Your task to perform on an android device: install app "Adobe Acrobat Reader: Edit PDF" Image 0: 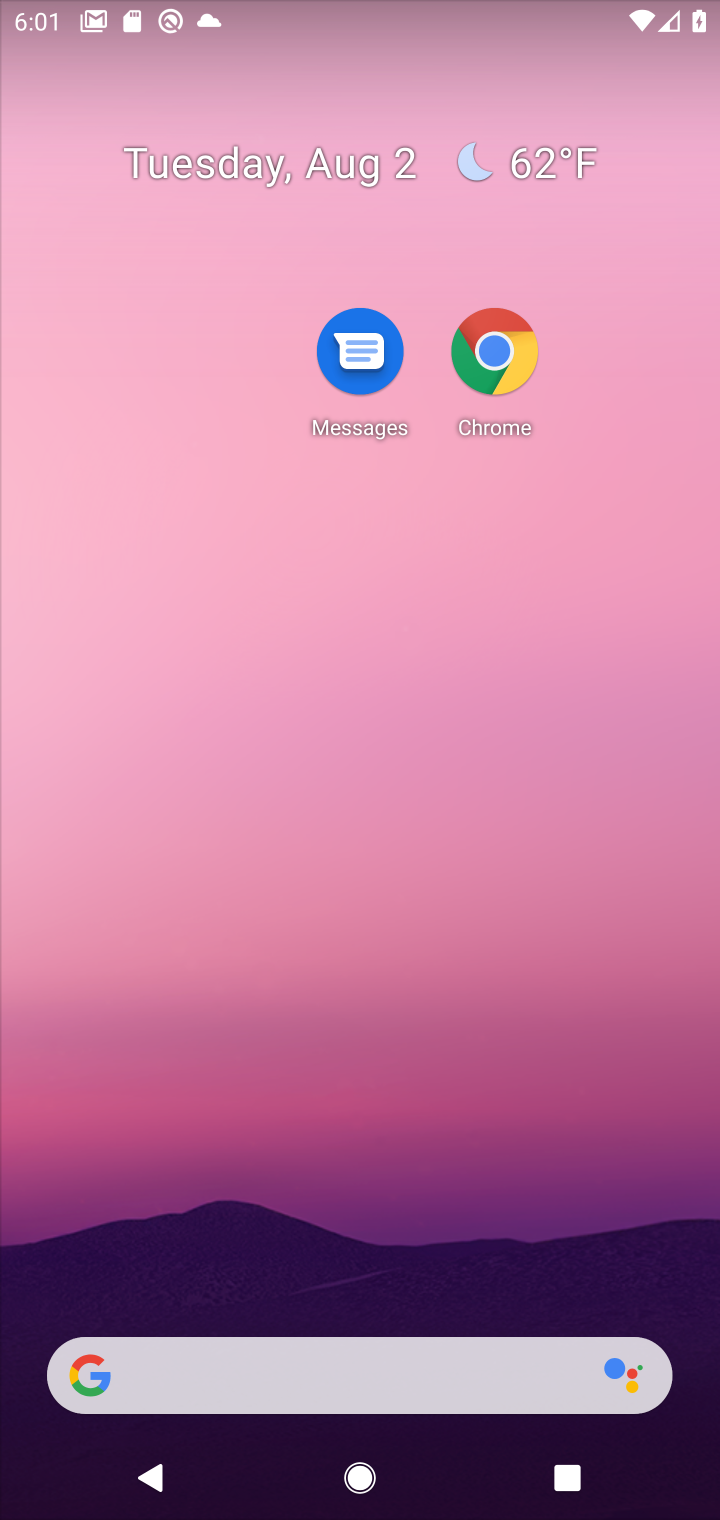
Step 0: click (427, 296)
Your task to perform on an android device: install app "Adobe Acrobat Reader: Edit PDF" Image 1: 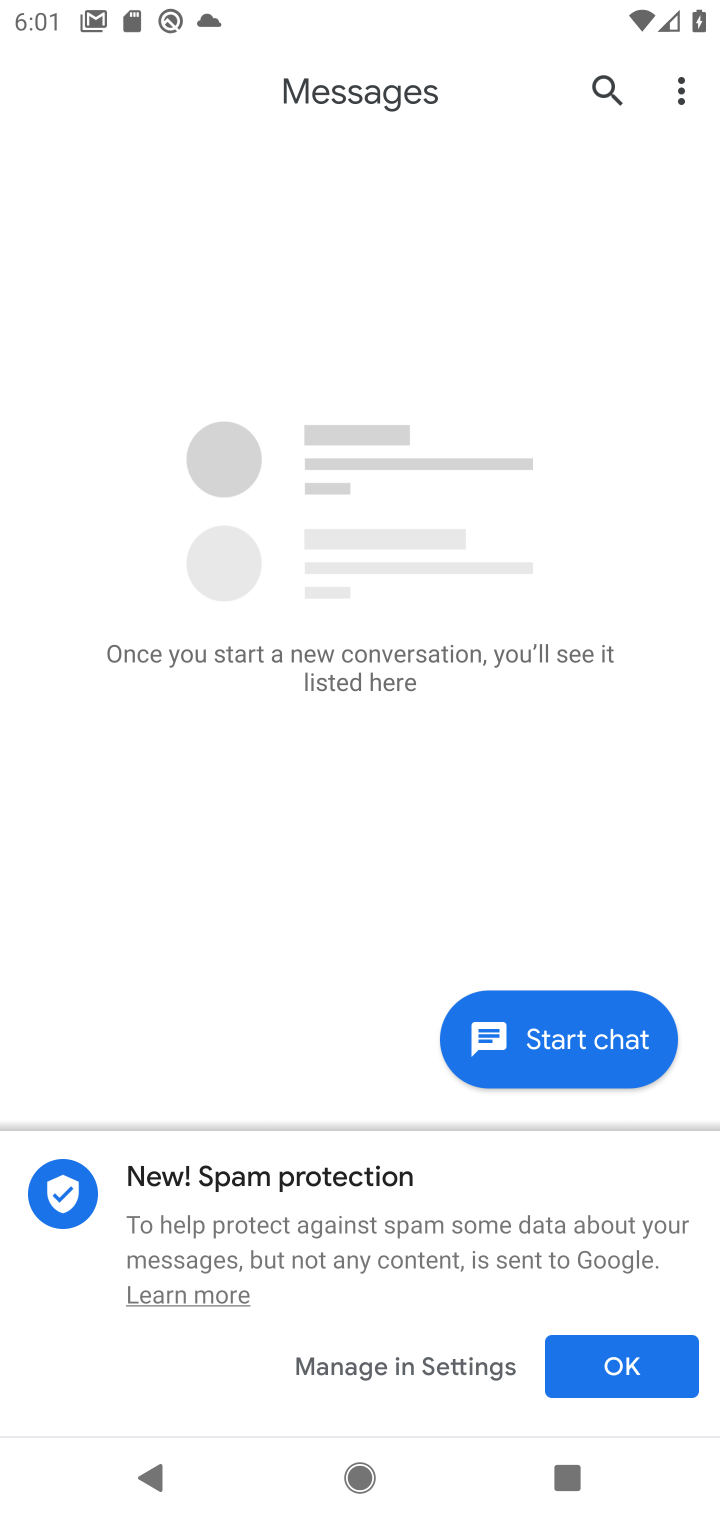
Step 1: drag from (340, 1239) to (488, 119)
Your task to perform on an android device: install app "Adobe Acrobat Reader: Edit PDF" Image 2: 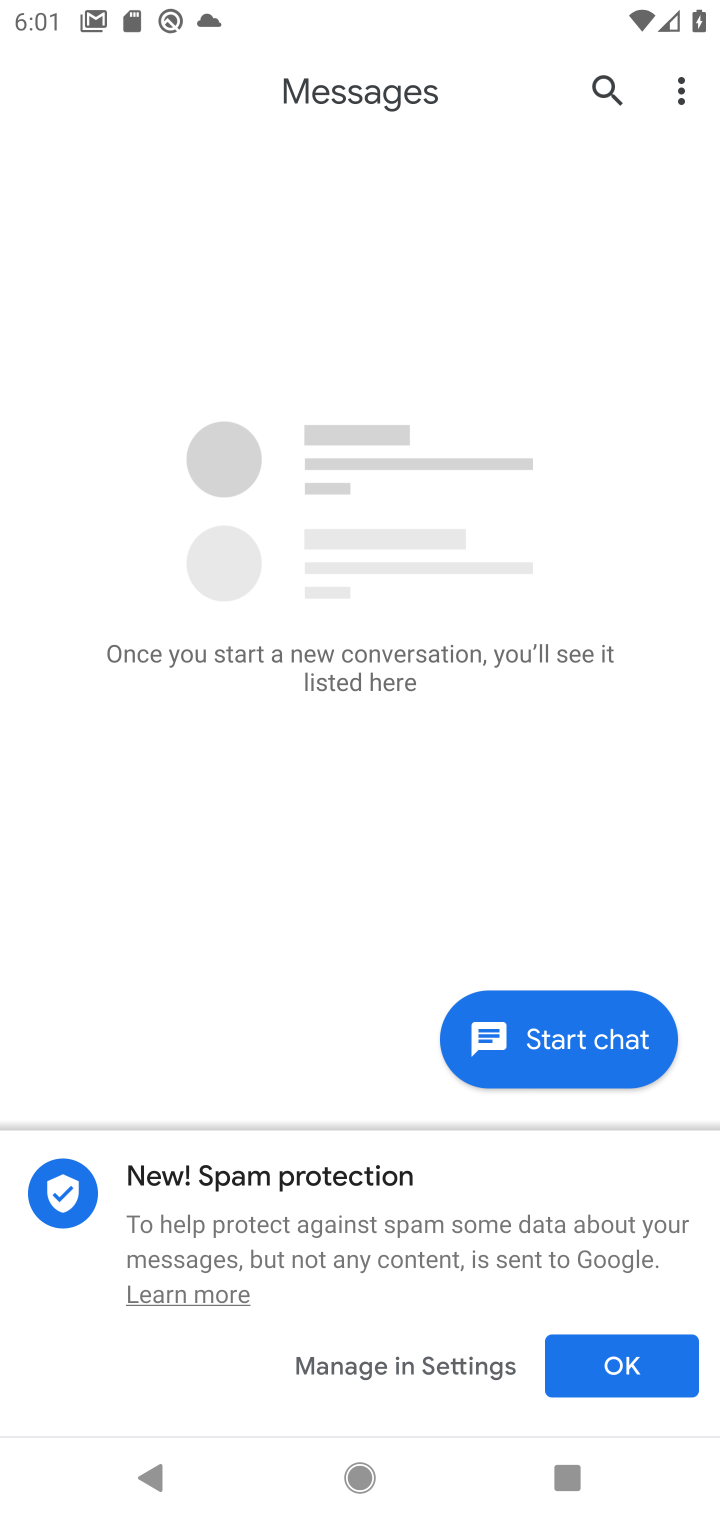
Step 2: press home button
Your task to perform on an android device: install app "Adobe Acrobat Reader: Edit PDF" Image 3: 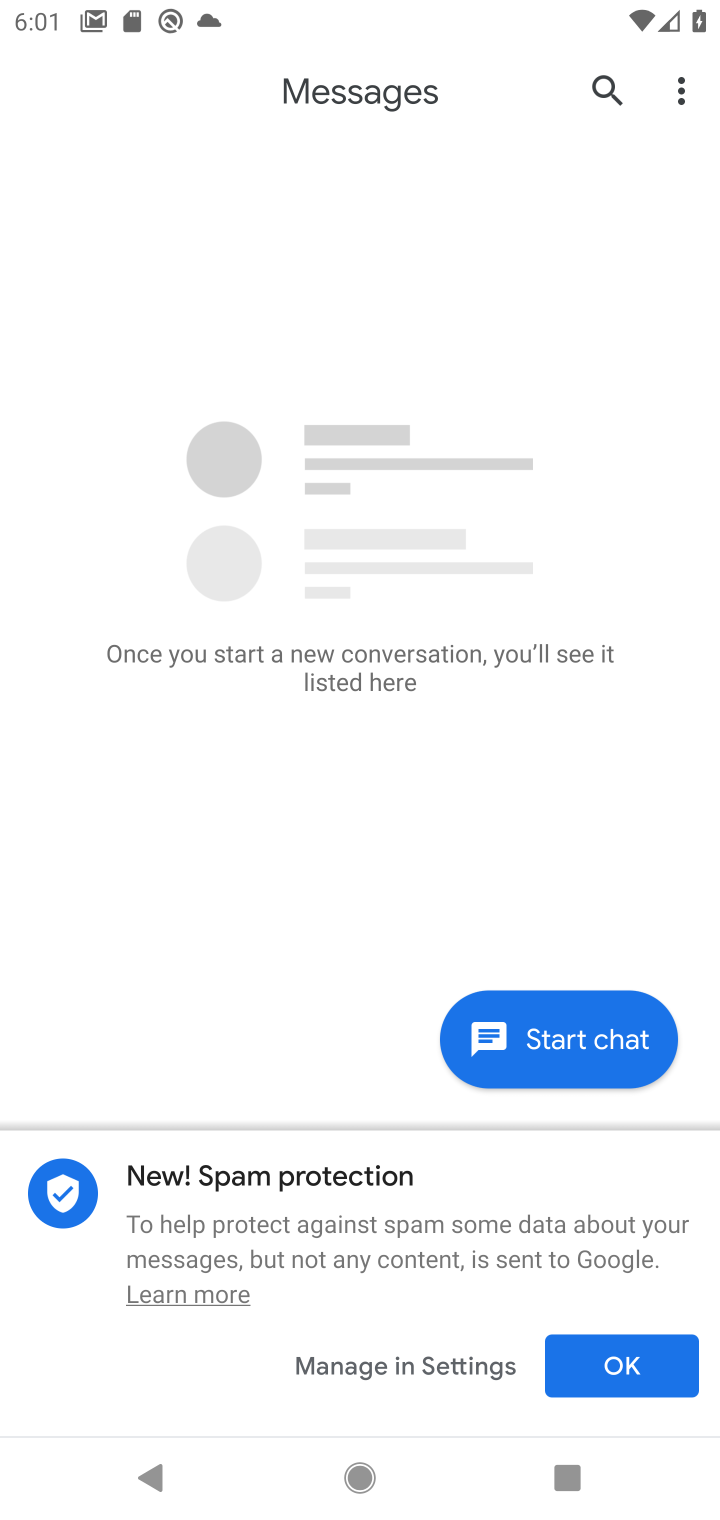
Step 3: click (458, 11)
Your task to perform on an android device: install app "Adobe Acrobat Reader: Edit PDF" Image 4: 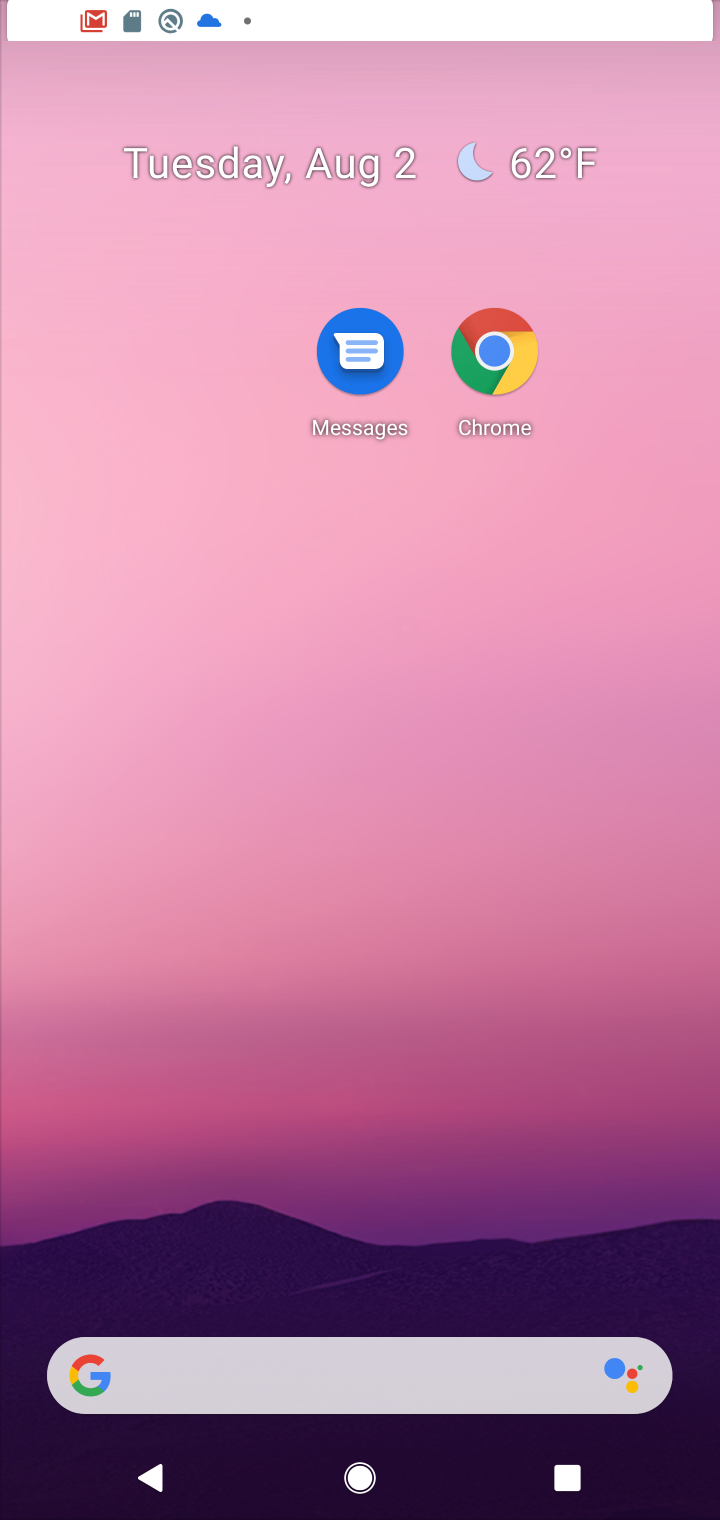
Step 4: drag from (372, 755) to (470, 4)
Your task to perform on an android device: install app "Adobe Acrobat Reader: Edit PDF" Image 5: 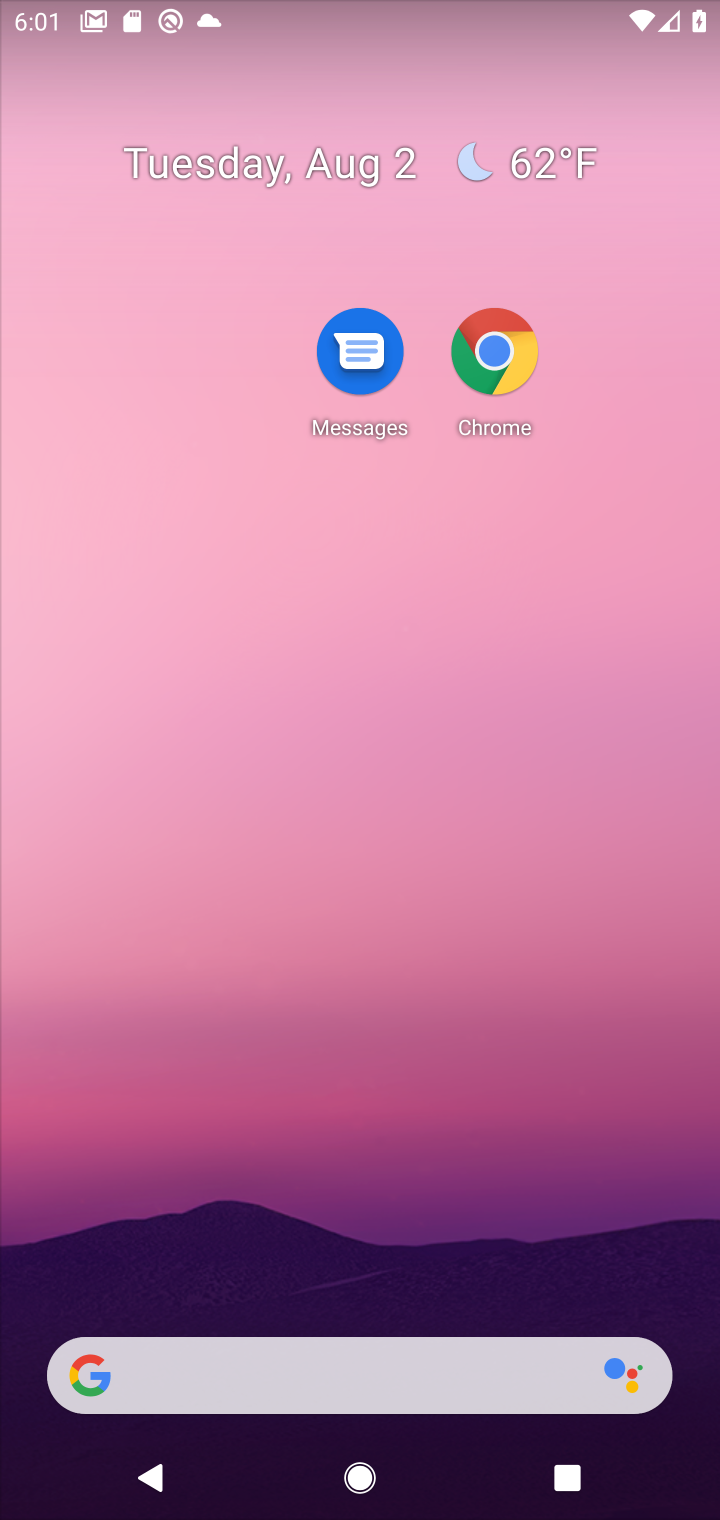
Step 5: drag from (326, 1217) to (416, 305)
Your task to perform on an android device: install app "Adobe Acrobat Reader: Edit PDF" Image 6: 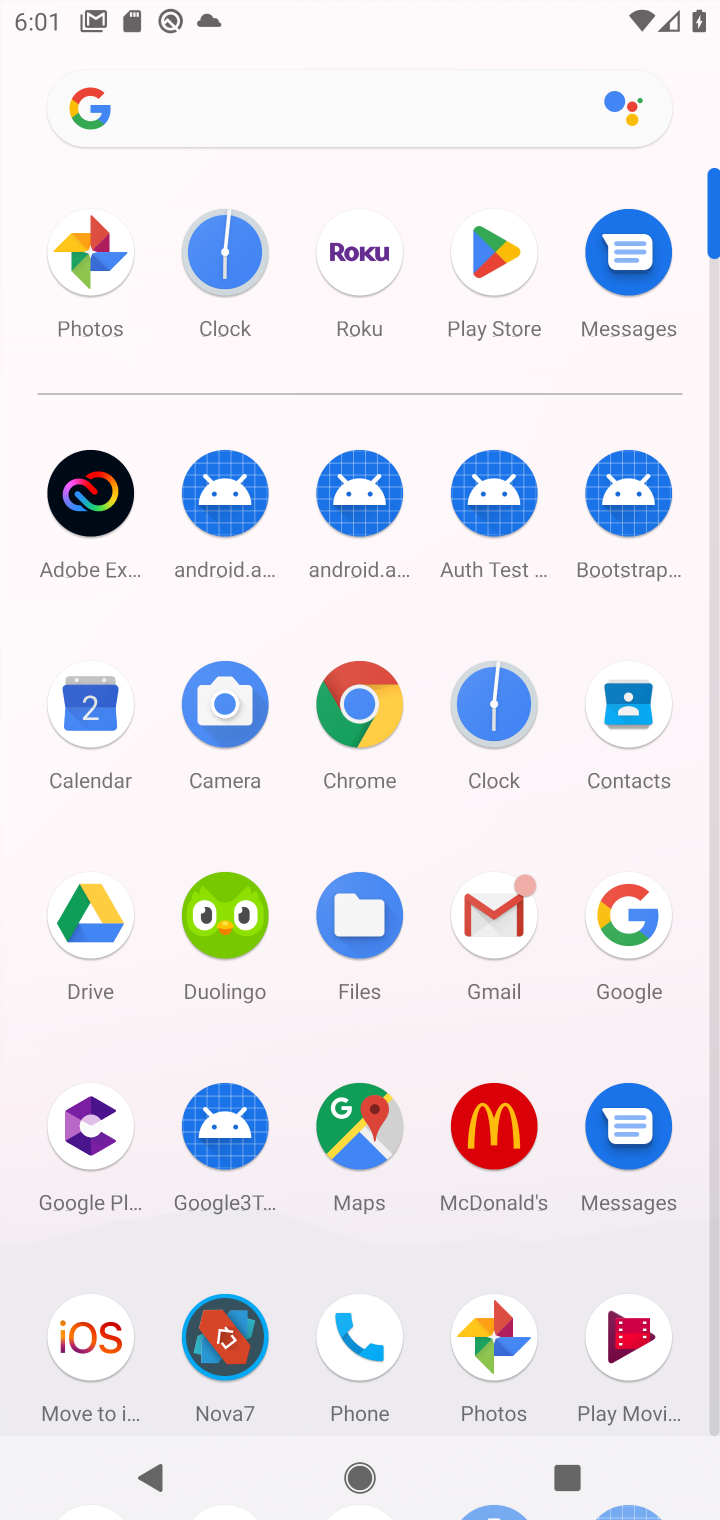
Step 6: click (488, 248)
Your task to perform on an android device: install app "Adobe Acrobat Reader: Edit PDF" Image 7: 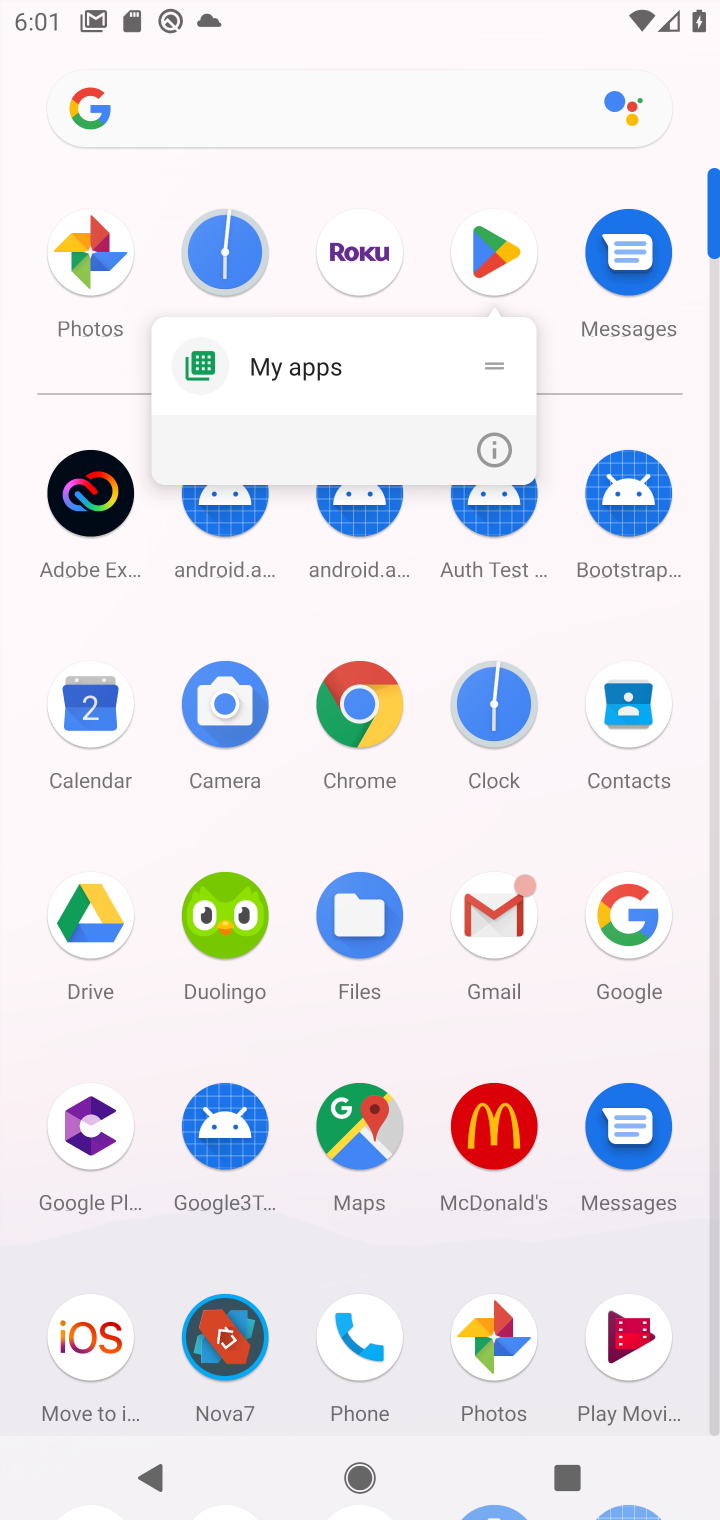
Step 7: click (483, 450)
Your task to perform on an android device: install app "Adobe Acrobat Reader: Edit PDF" Image 8: 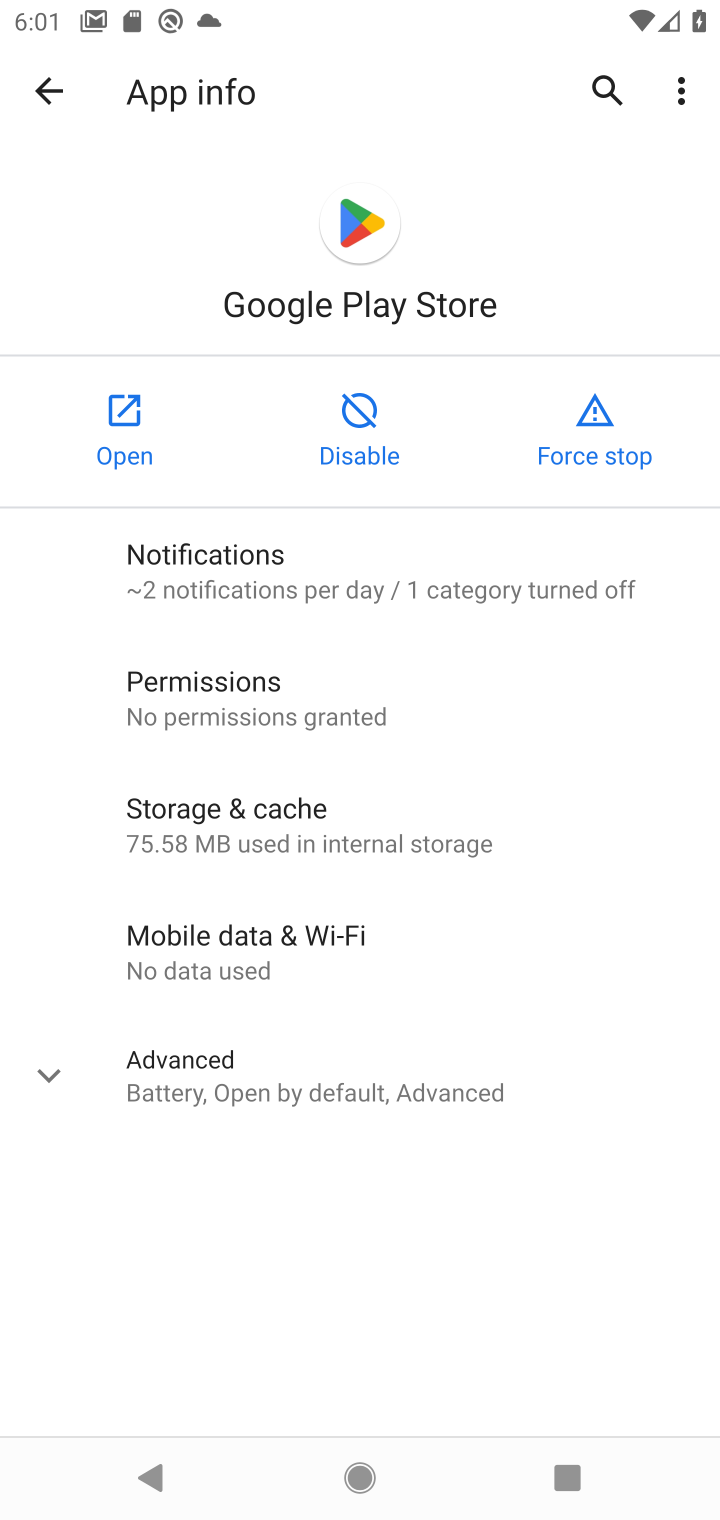
Step 8: click (145, 421)
Your task to perform on an android device: install app "Adobe Acrobat Reader: Edit PDF" Image 9: 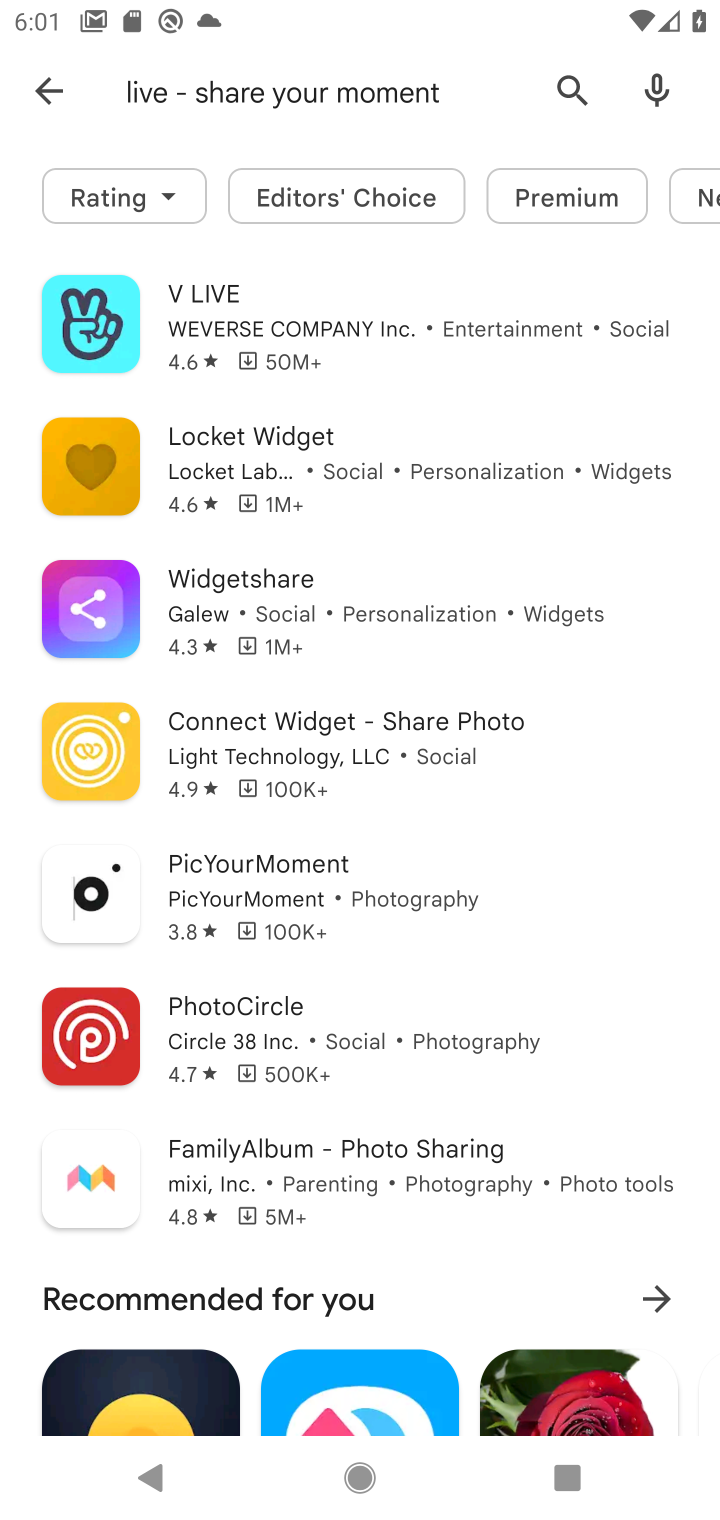
Step 9: drag from (406, 689) to (409, 1506)
Your task to perform on an android device: install app "Adobe Acrobat Reader: Edit PDF" Image 10: 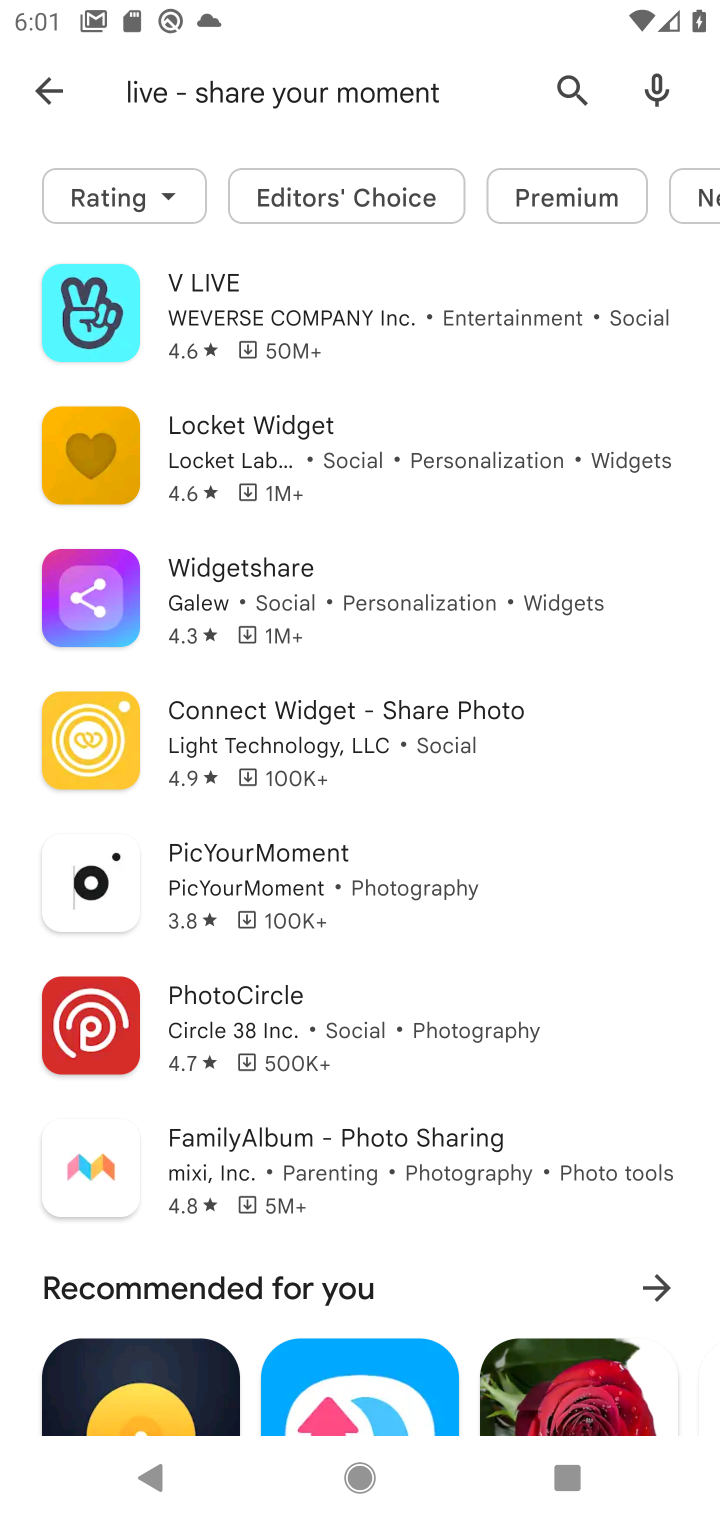
Step 10: click (577, 93)
Your task to perform on an android device: install app "Adobe Acrobat Reader: Edit PDF" Image 11: 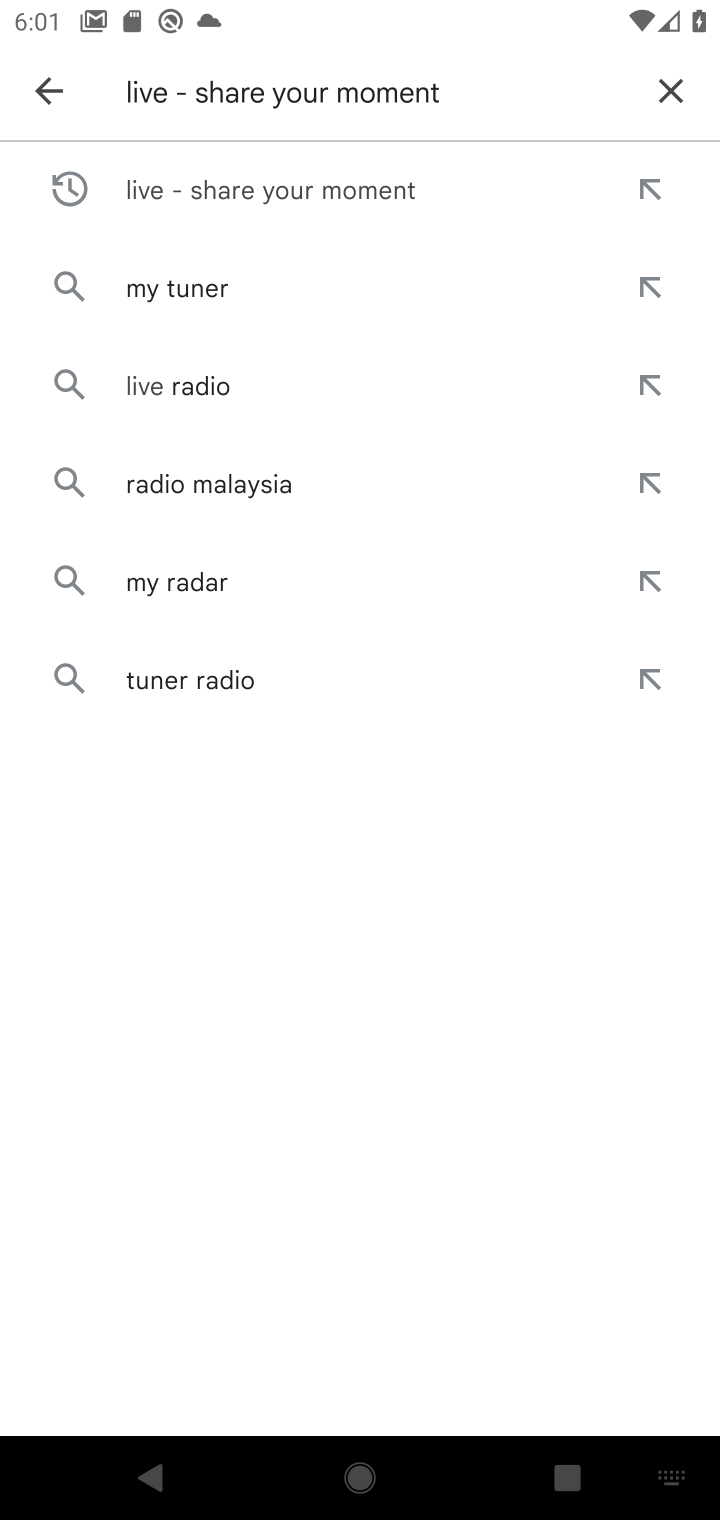
Step 11: click (665, 91)
Your task to perform on an android device: install app "Adobe Acrobat Reader: Edit PDF" Image 12: 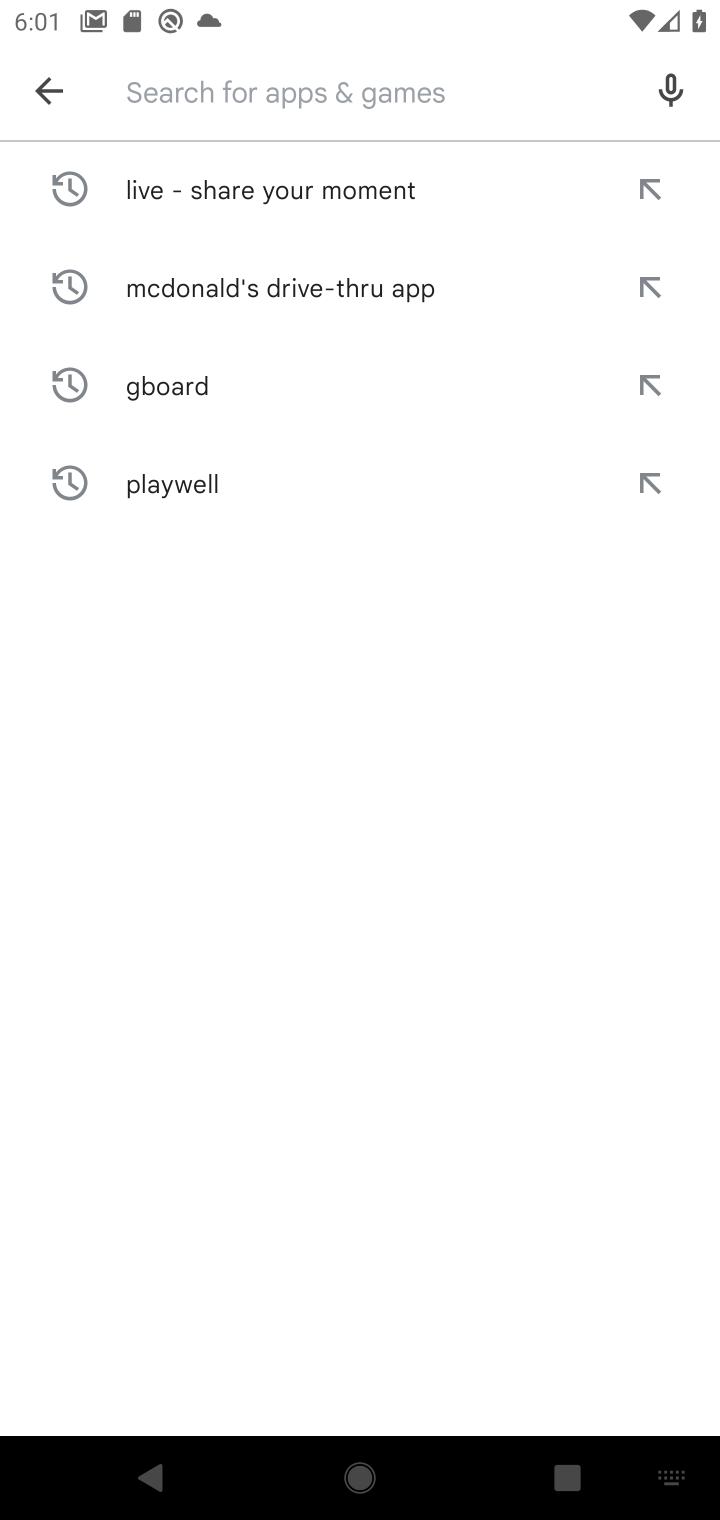
Step 12: click (306, 99)
Your task to perform on an android device: install app "Adobe Acrobat Reader: Edit PDF" Image 13: 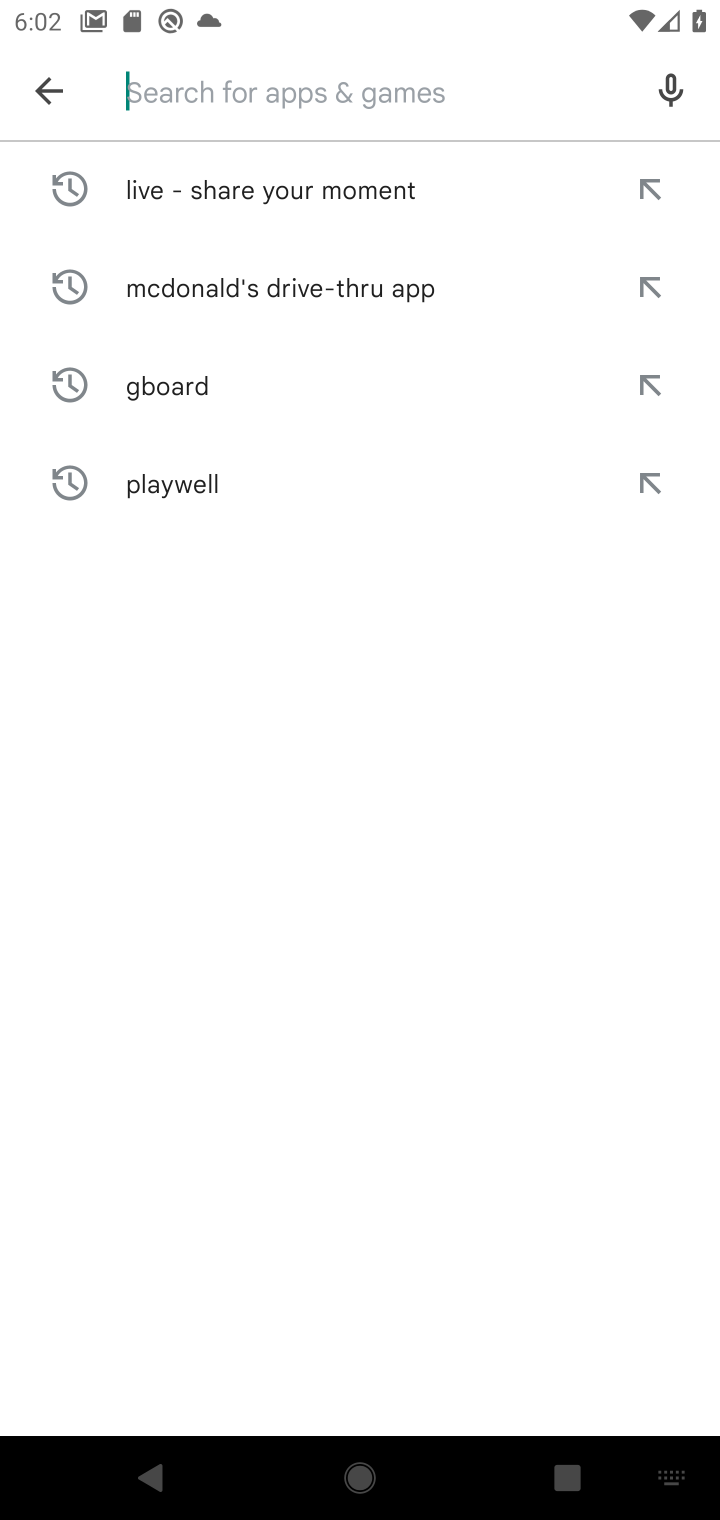
Step 13: type "Adobe Acrobat Reader: Edit PDF"
Your task to perform on an android device: install app "Adobe Acrobat Reader: Edit PDF" Image 14: 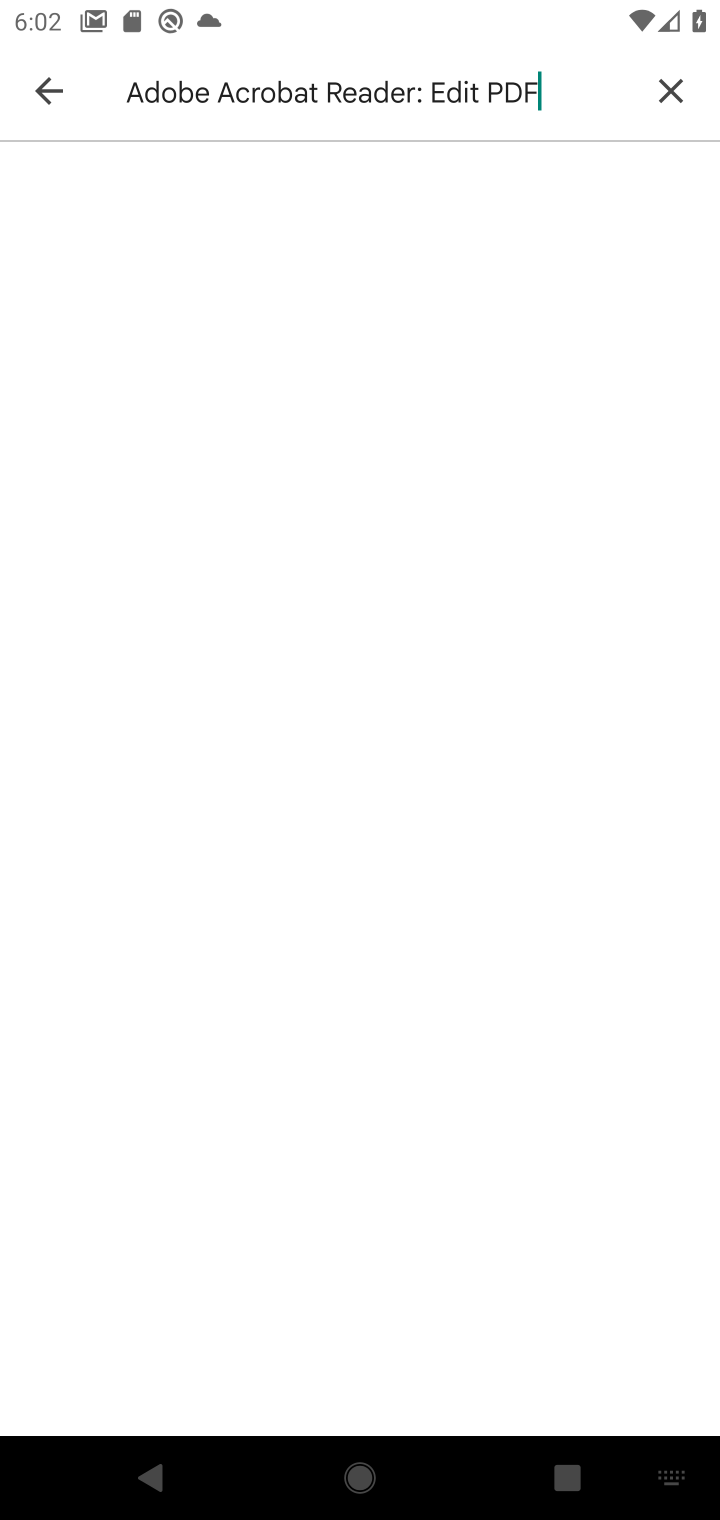
Step 14: click (409, 286)
Your task to perform on an android device: install app "Adobe Acrobat Reader: Edit PDF" Image 15: 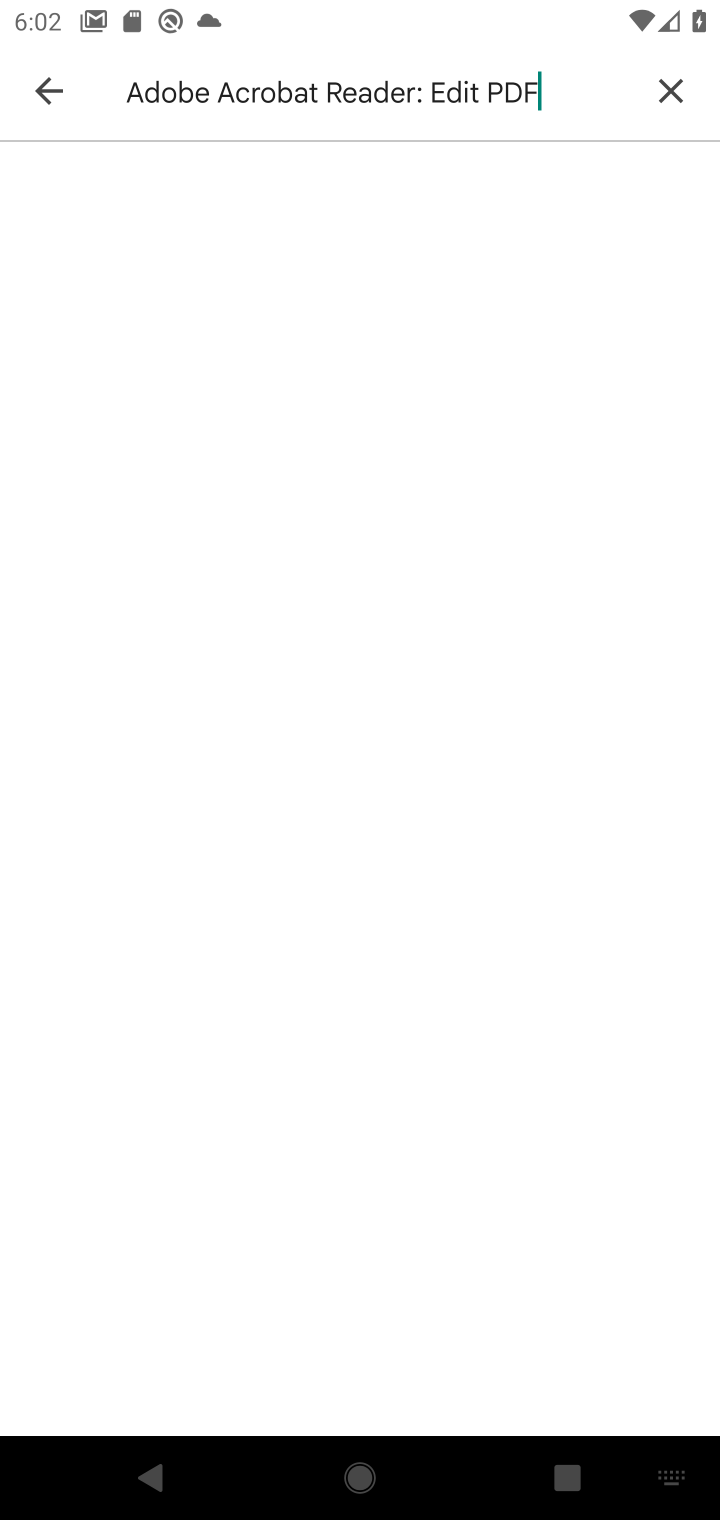
Step 15: drag from (362, 266) to (258, 1120)
Your task to perform on an android device: install app "Adobe Acrobat Reader: Edit PDF" Image 16: 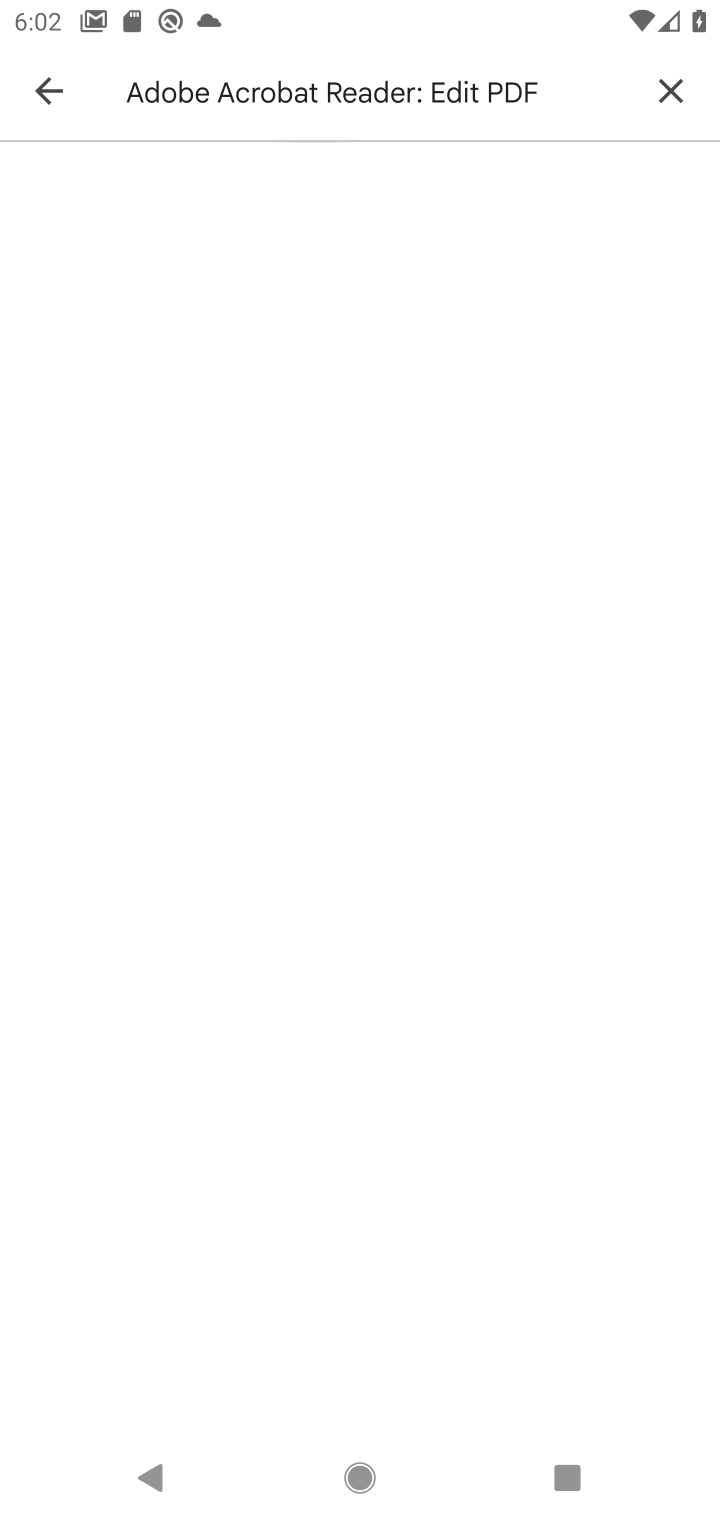
Step 16: click (323, 220)
Your task to perform on an android device: install app "Adobe Acrobat Reader: Edit PDF" Image 17: 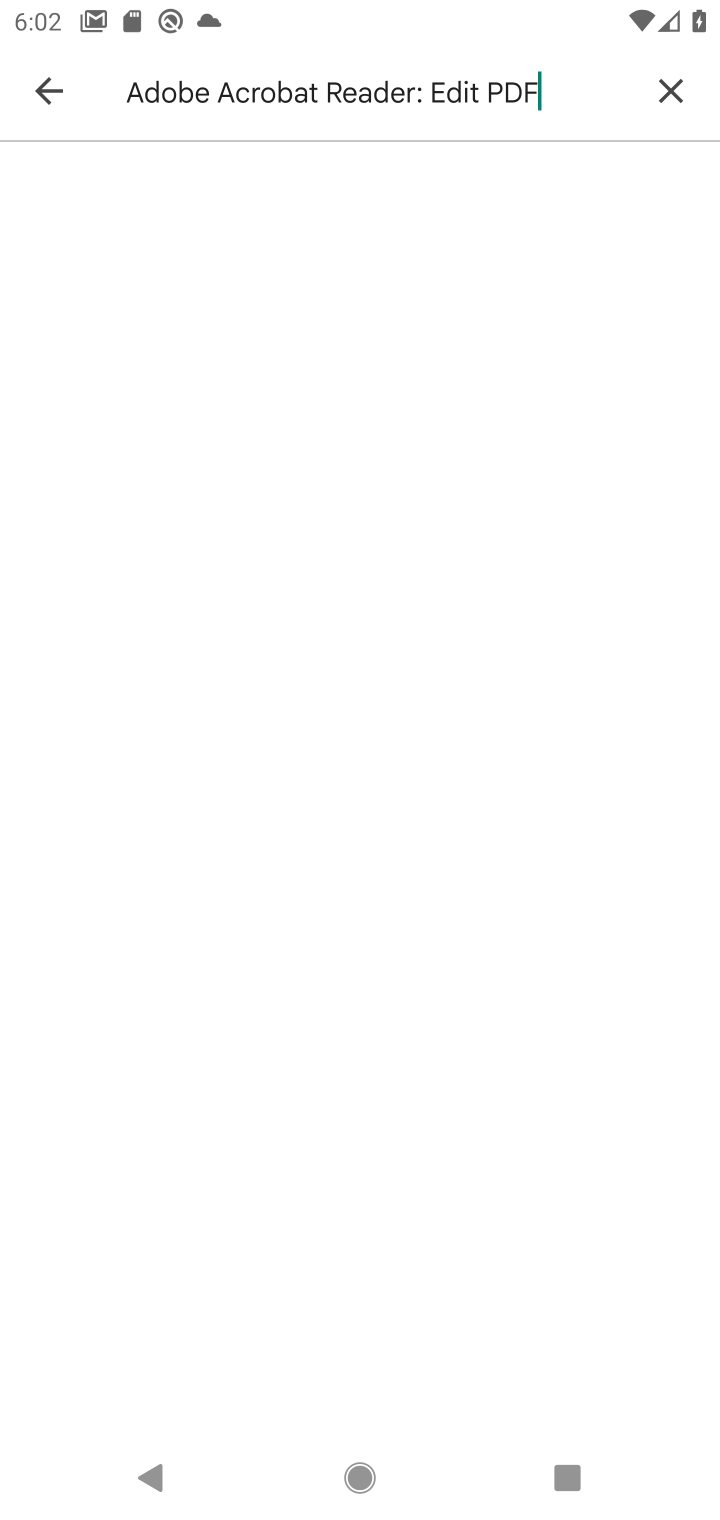
Step 17: click (280, 215)
Your task to perform on an android device: install app "Adobe Acrobat Reader: Edit PDF" Image 18: 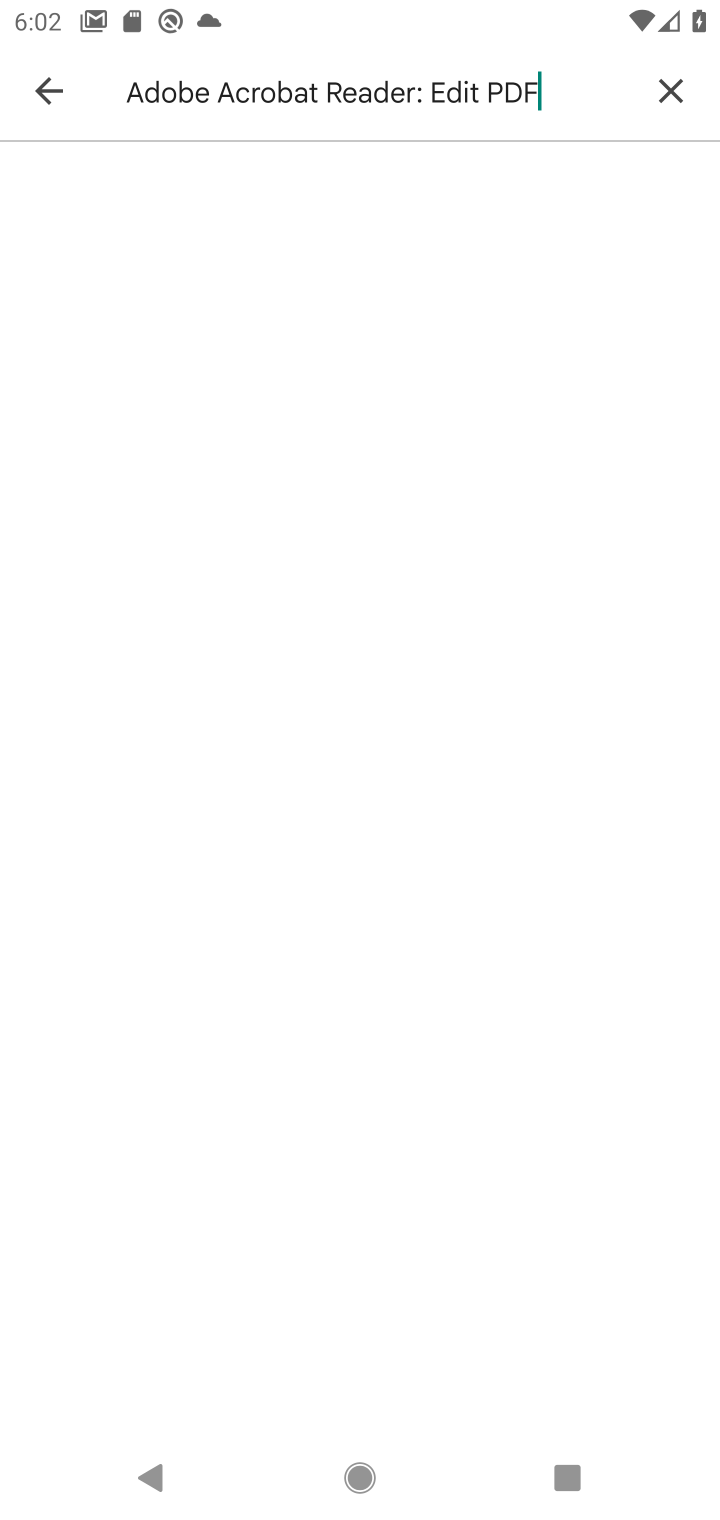
Step 18: click (341, 217)
Your task to perform on an android device: install app "Adobe Acrobat Reader: Edit PDF" Image 19: 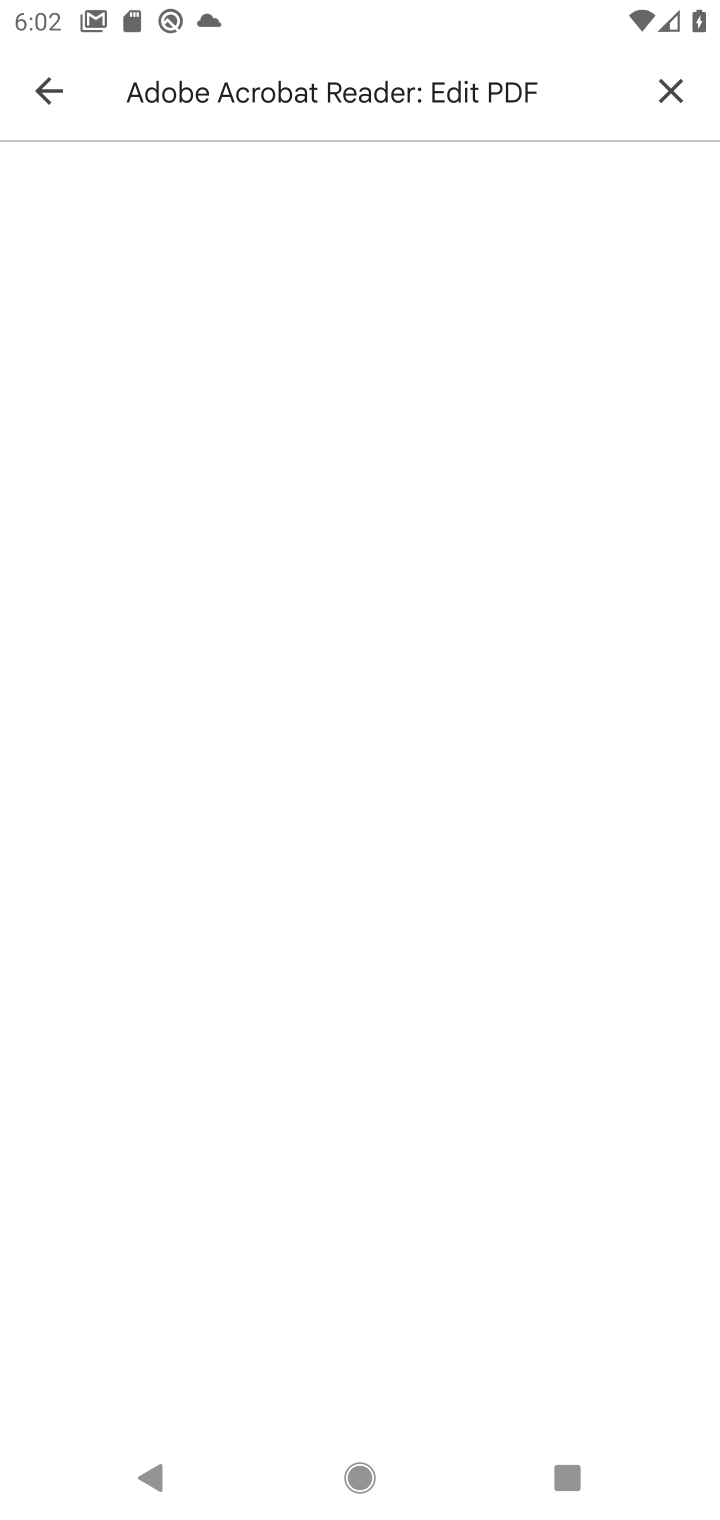
Step 19: click (690, 101)
Your task to perform on an android device: install app "Adobe Acrobat Reader: Edit PDF" Image 20: 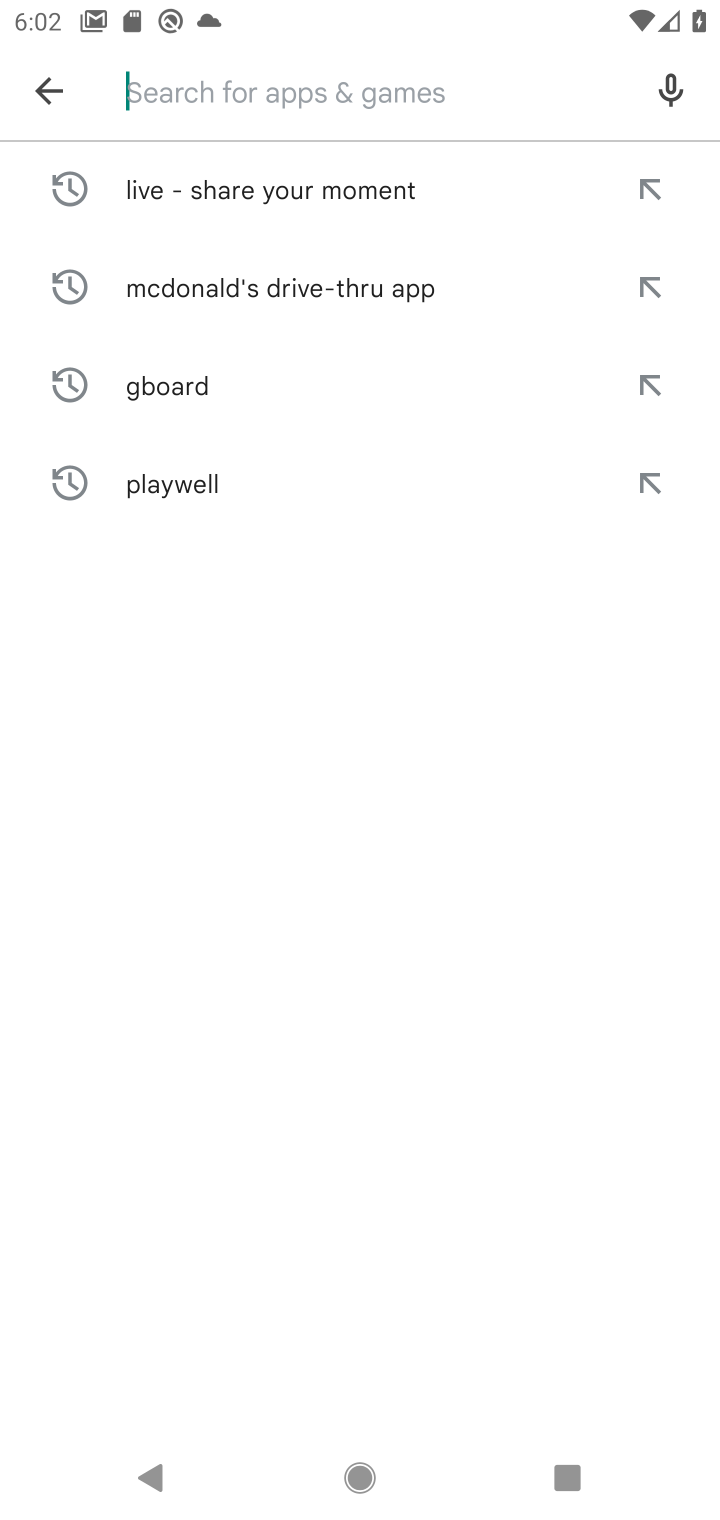
Step 20: type "Adobe Acrobat Reader: Edit PDF"
Your task to perform on an android device: install app "Adobe Acrobat Reader: Edit PDF" Image 21: 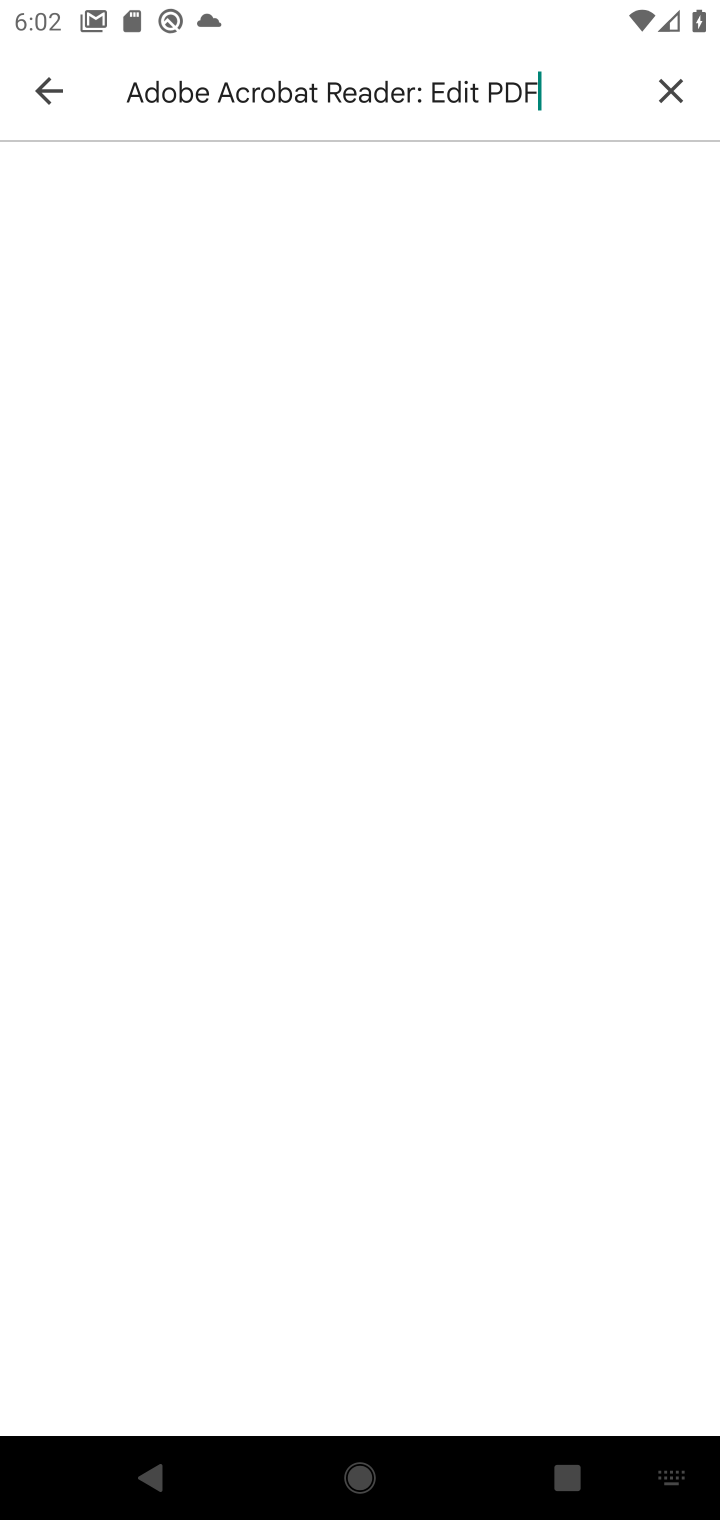
Step 21: type ""
Your task to perform on an android device: install app "Adobe Acrobat Reader: Edit PDF" Image 22: 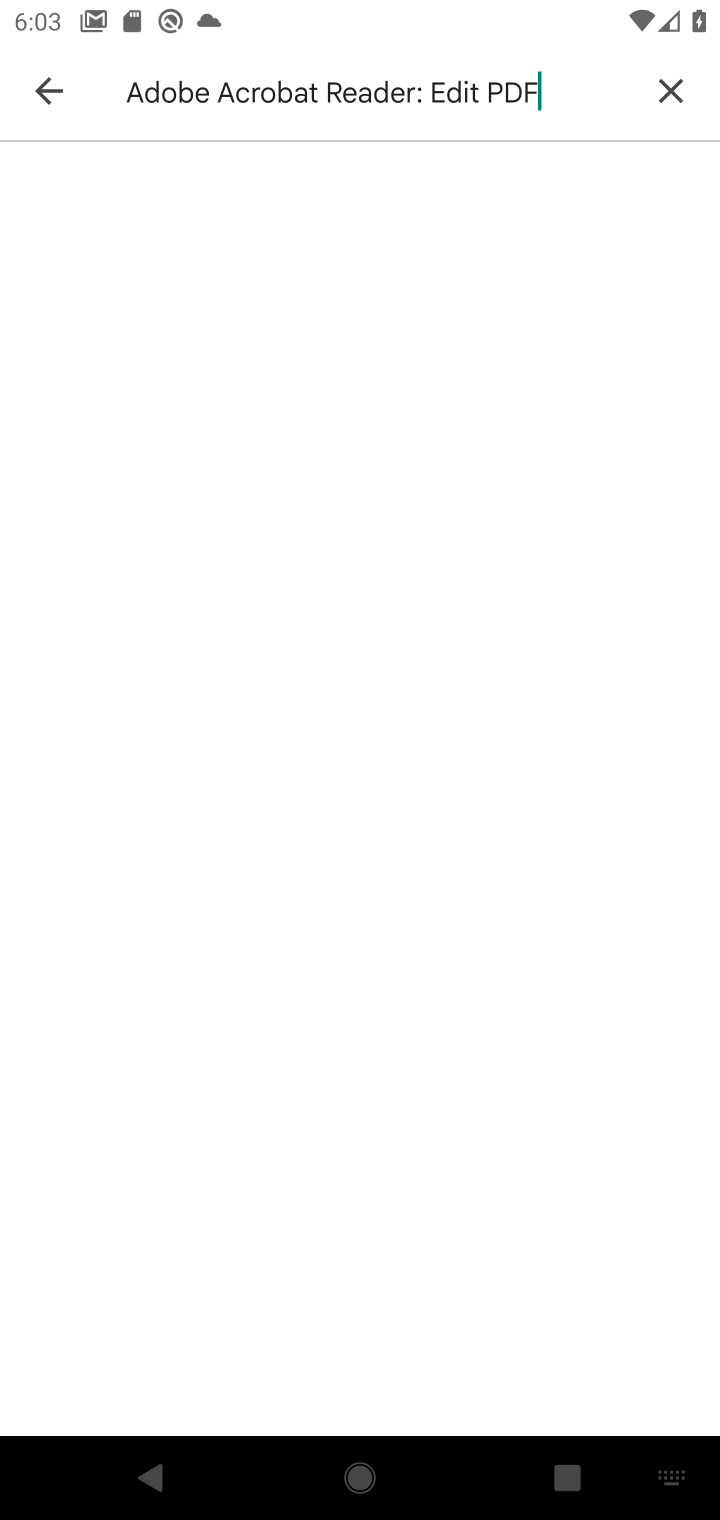
Step 22: task complete